Your task to perform on an android device: delete a single message in the gmail app Image 0: 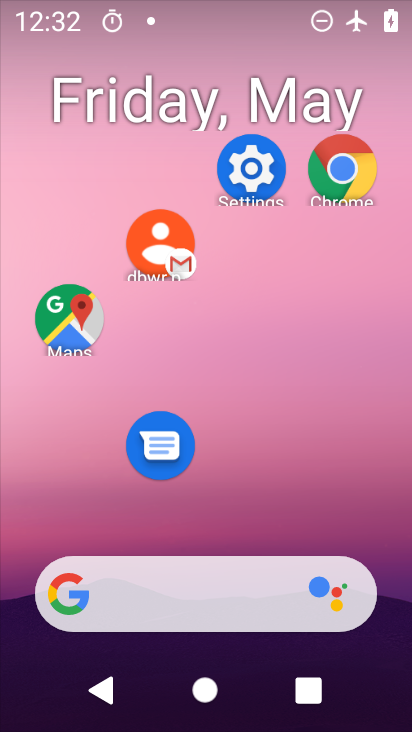
Step 0: drag from (206, 520) to (206, 77)
Your task to perform on an android device: delete a single message in the gmail app Image 1: 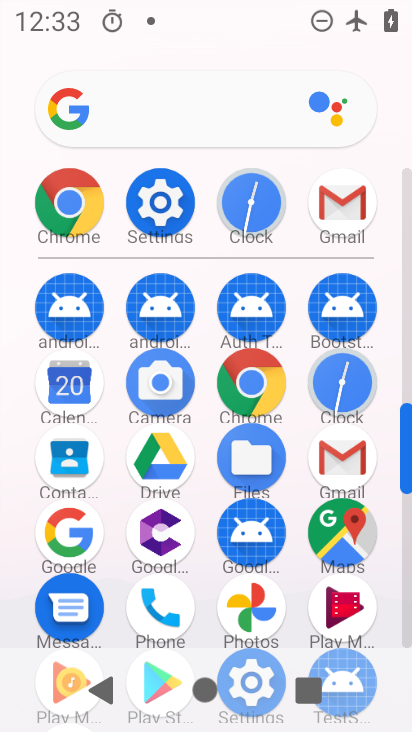
Step 1: click (343, 449)
Your task to perform on an android device: delete a single message in the gmail app Image 2: 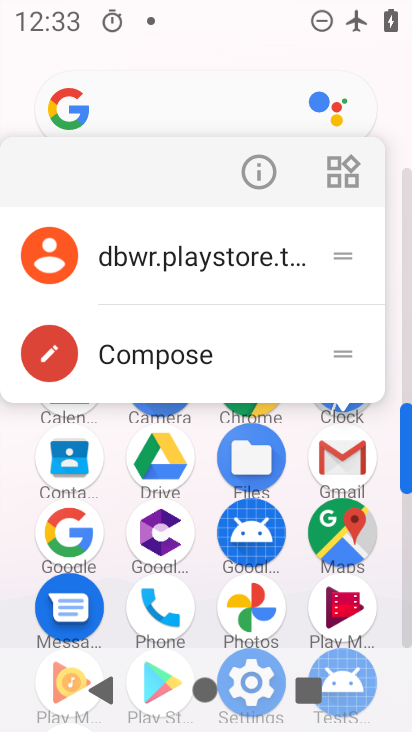
Step 2: click (255, 183)
Your task to perform on an android device: delete a single message in the gmail app Image 3: 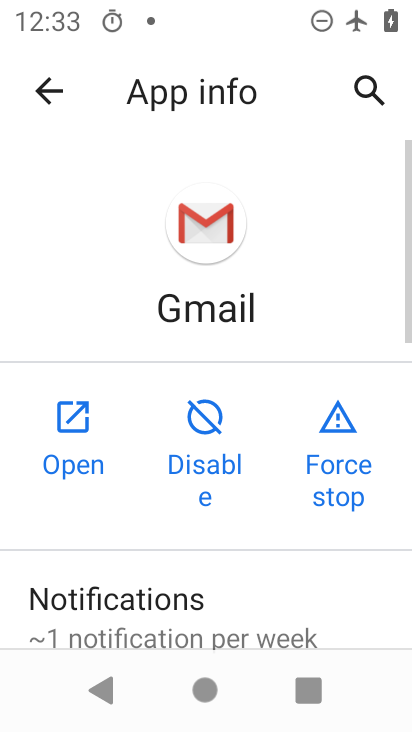
Step 3: click (91, 437)
Your task to perform on an android device: delete a single message in the gmail app Image 4: 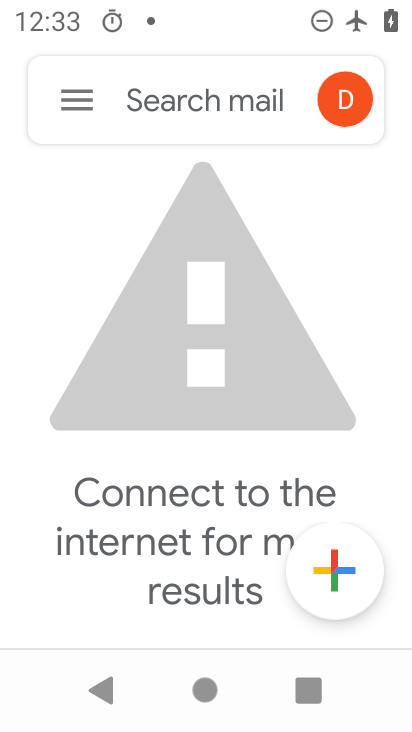
Step 4: click (79, 95)
Your task to perform on an android device: delete a single message in the gmail app Image 5: 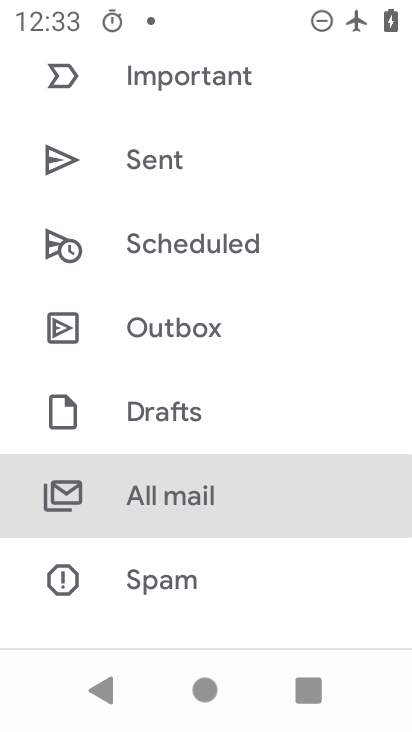
Step 5: click (104, 508)
Your task to perform on an android device: delete a single message in the gmail app Image 6: 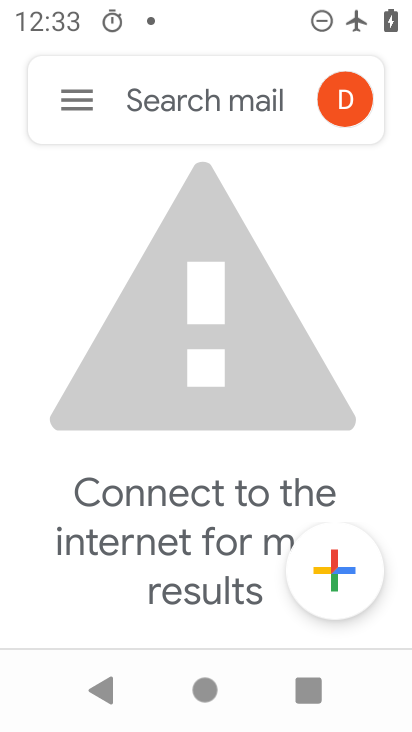
Step 6: task complete